Your task to perform on an android device: turn on notifications settings in the gmail app Image 0: 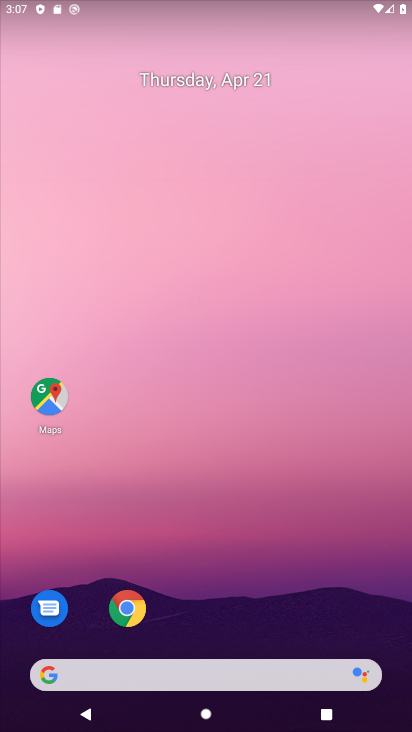
Step 0: drag from (306, 519) to (252, 128)
Your task to perform on an android device: turn on notifications settings in the gmail app Image 1: 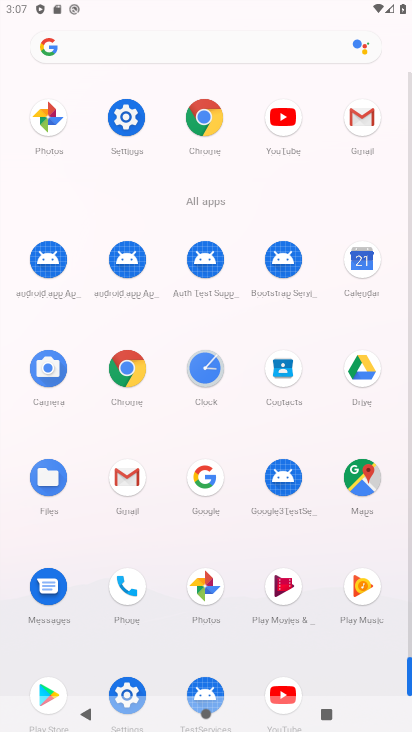
Step 1: click (367, 131)
Your task to perform on an android device: turn on notifications settings in the gmail app Image 2: 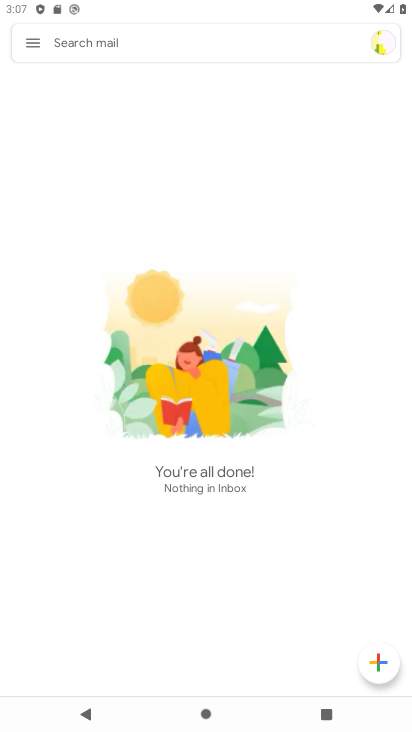
Step 2: click (23, 46)
Your task to perform on an android device: turn on notifications settings in the gmail app Image 3: 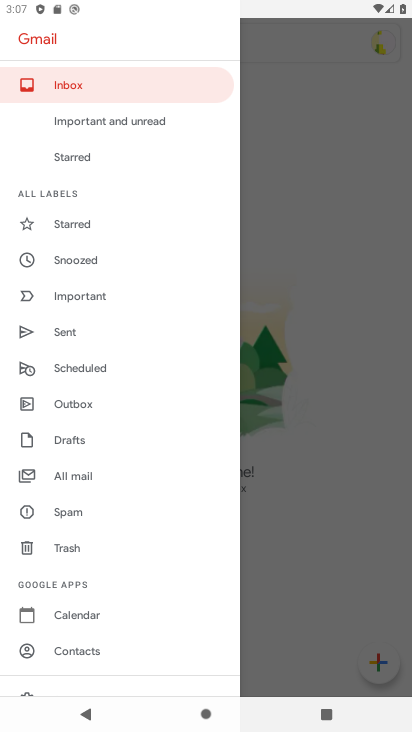
Step 3: drag from (76, 625) to (185, 206)
Your task to perform on an android device: turn on notifications settings in the gmail app Image 4: 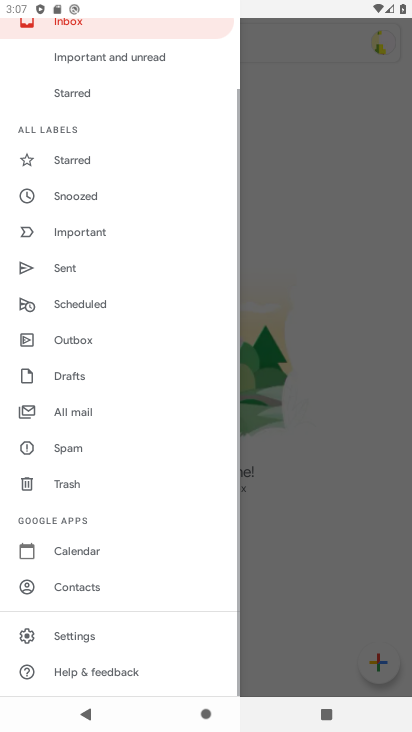
Step 4: click (90, 640)
Your task to perform on an android device: turn on notifications settings in the gmail app Image 5: 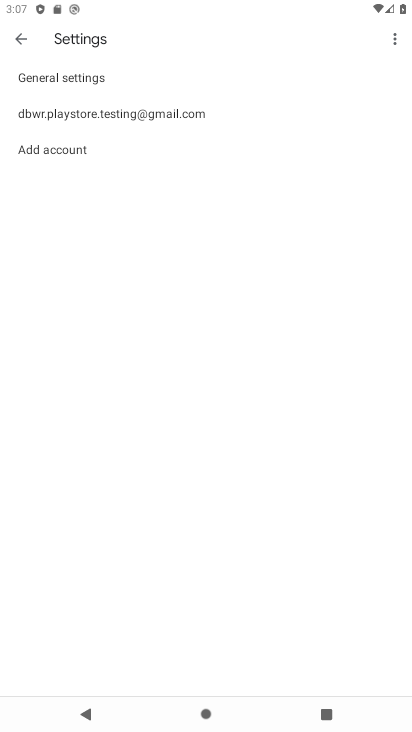
Step 5: click (85, 112)
Your task to perform on an android device: turn on notifications settings in the gmail app Image 6: 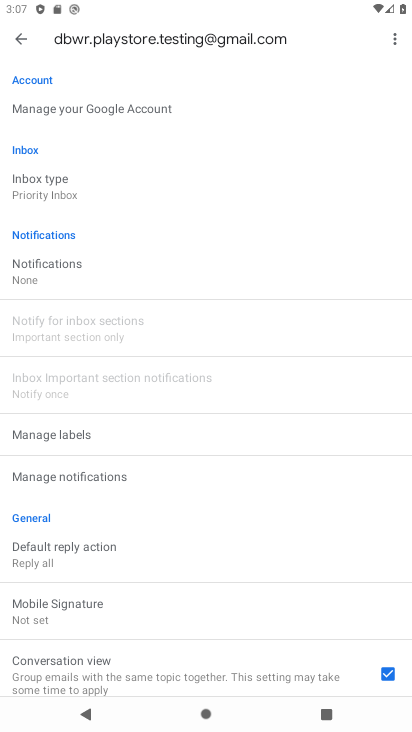
Step 6: click (29, 267)
Your task to perform on an android device: turn on notifications settings in the gmail app Image 7: 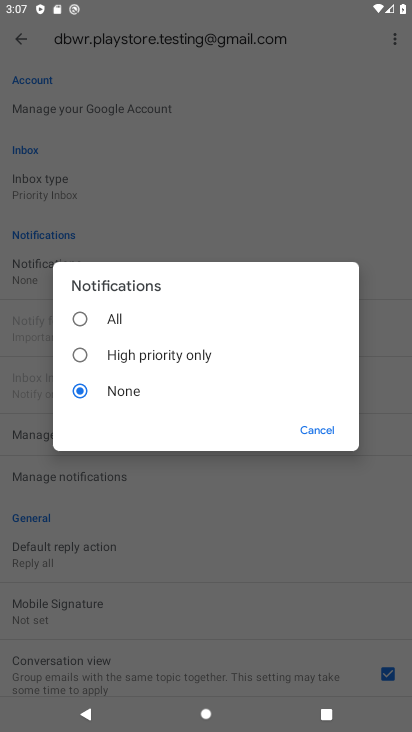
Step 7: click (73, 316)
Your task to perform on an android device: turn on notifications settings in the gmail app Image 8: 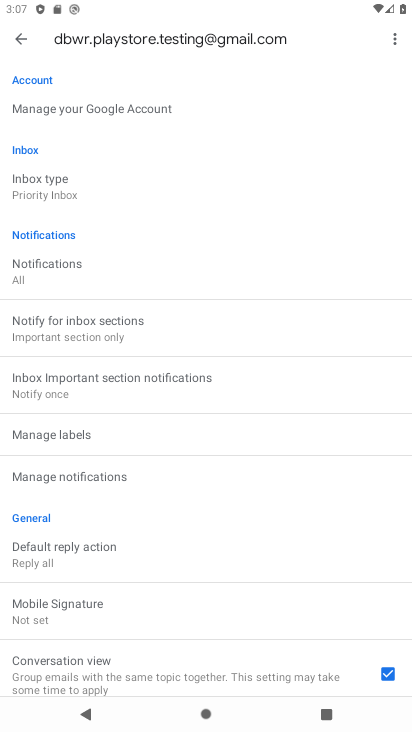
Step 8: task complete